Your task to perform on an android device: turn on notifications settings in the gmail app Image 0: 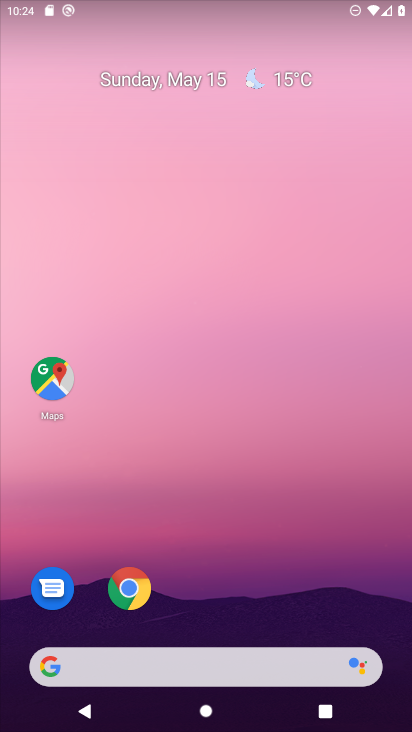
Step 0: drag from (254, 617) to (296, 9)
Your task to perform on an android device: turn on notifications settings in the gmail app Image 1: 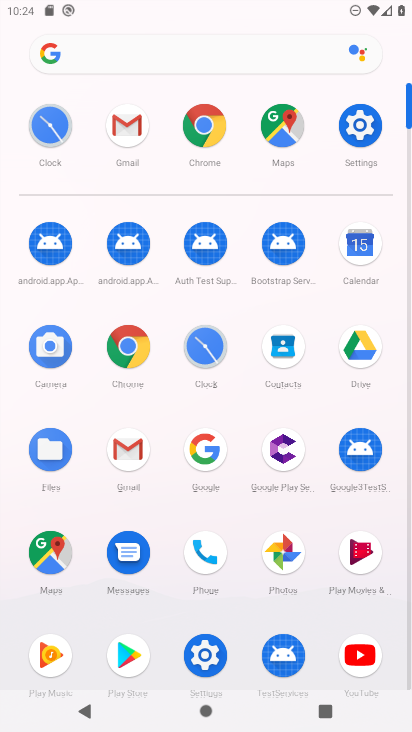
Step 1: click (122, 450)
Your task to perform on an android device: turn on notifications settings in the gmail app Image 2: 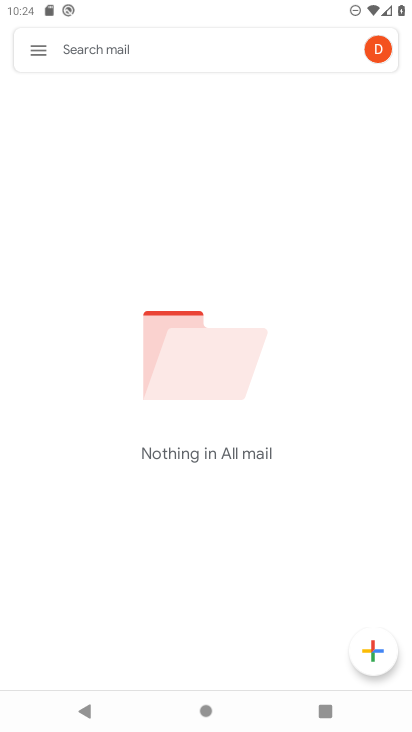
Step 2: click (32, 54)
Your task to perform on an android device: turn on notifications settings in the gmail app Image 3: 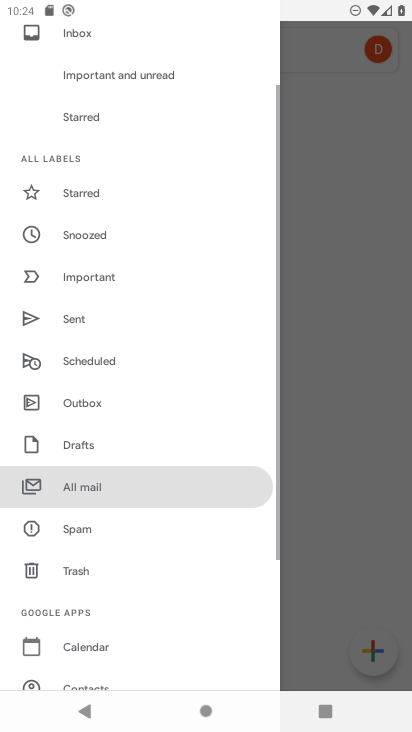
Step 3: drag from (113, 621) to (208, 71)
Your task to perform on an android device: turn on notifications settings in the gmail app Image 4: 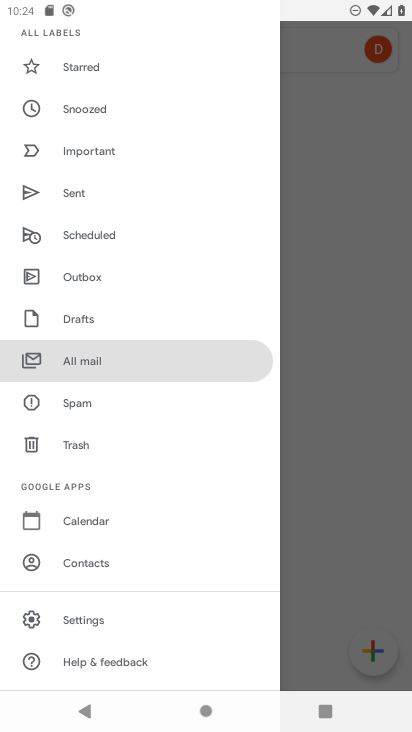
Step 4: click (89, 633)
Your task to perform on an android device: turn on notifications settings in the gmail app Image 5: 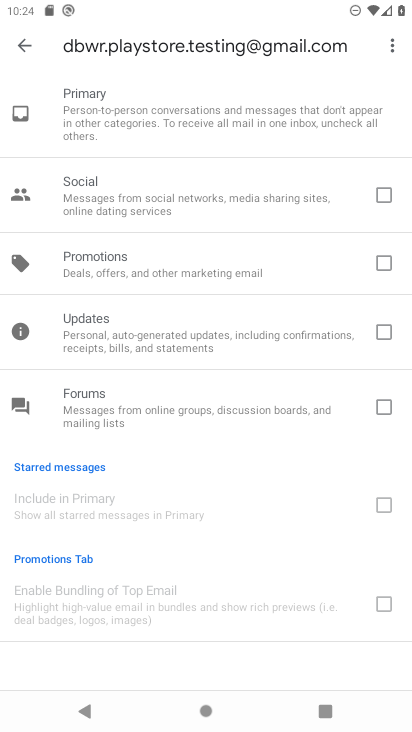
Step 5: click (24, 51)
Your task to perform on an android device: turn on notifications settings in the gmail app Image 6: 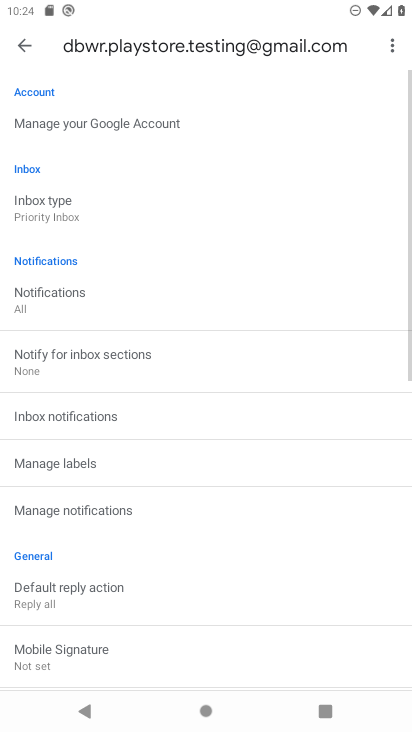
Step 6: click (26, 42)
Your task to perform on an android device: turn on notifications settings in the gmail app Image 7: 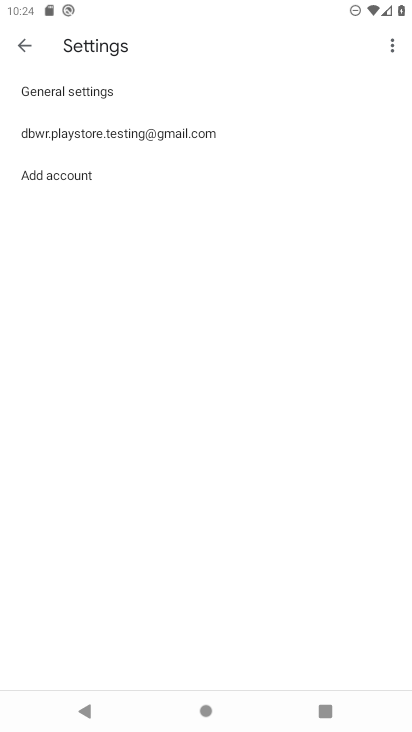
Step 7: click (89, 88)
Your task to perform on an android device: turn on notifications settings in the gmail app Image 8: 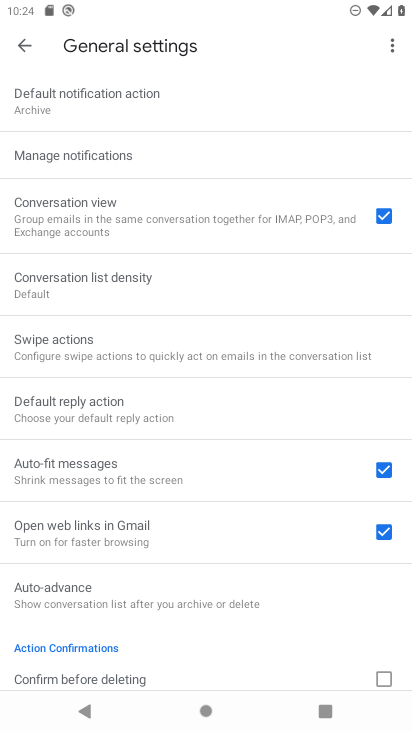
Step 8: click (110, 150)
Your task to perform on an android device: turn on notifications settings in the gmail app Image 9: 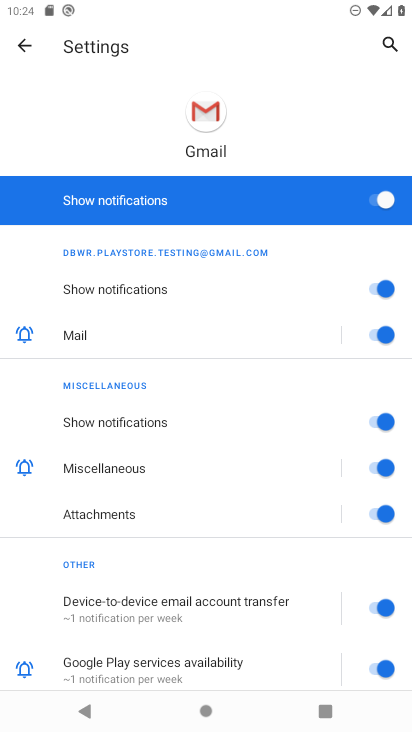
Step 9: task complete